Your task to perform on an android device: Go to Google maps Image 0: 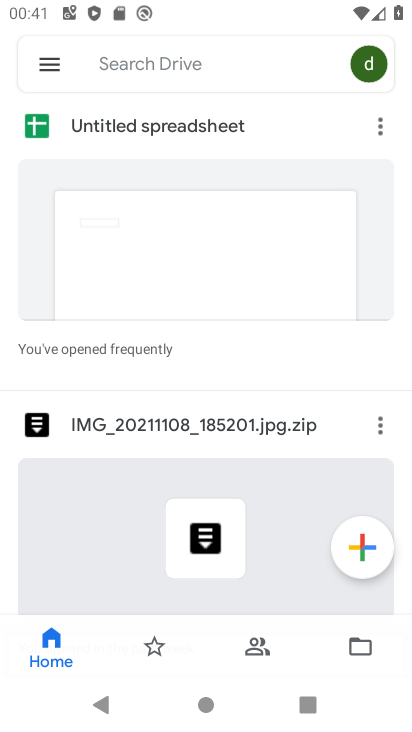
Step 0: press home button
Your task to perform on an android device: Go to Google maps Image 1: 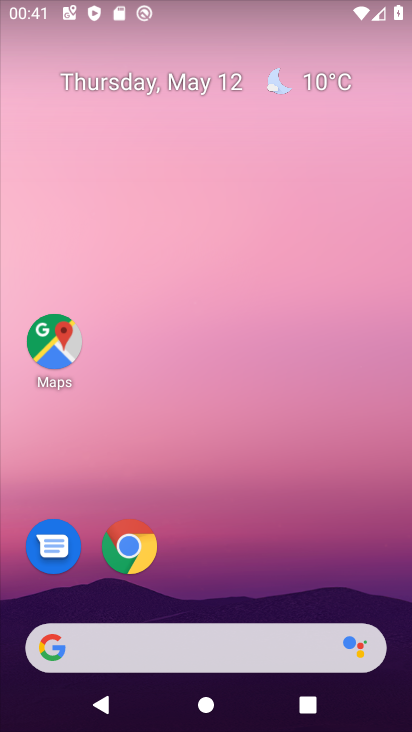
Step 1: click (49, 344)
Your task to perform on an android device: Go to Google maps Image 2: 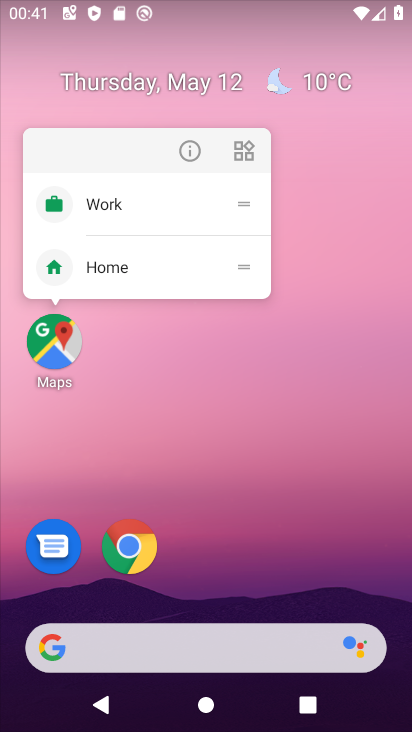
Step 2: click (50, 344)
Your task to perform on an android device: Go to Google maps Image 3: 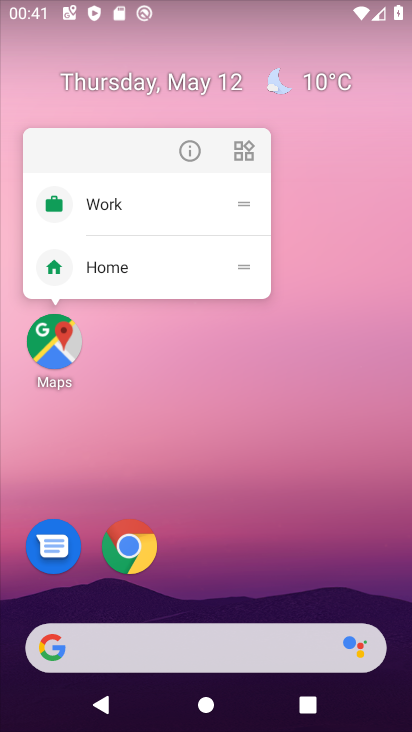
Step 3: click (48, 344)
Your task to perform on an android device: Go to Google maps Image 4: 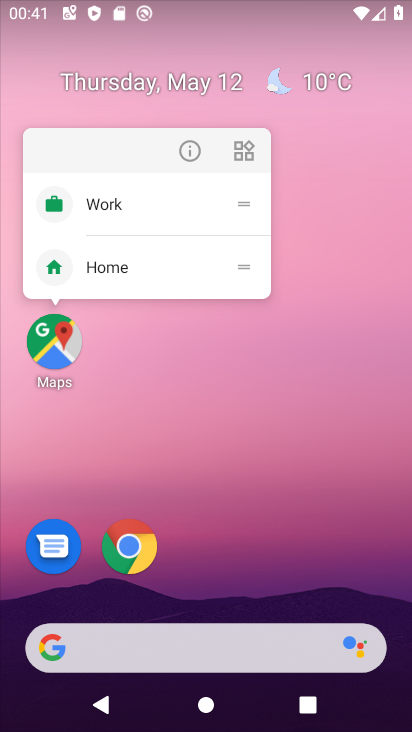
Step 4: click (178, 155)
Your task to perform on an android device: Go to Google maps Image 5: 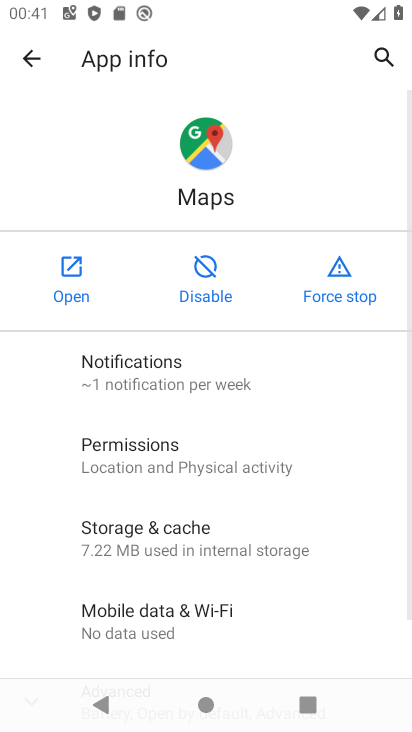
Step 5: click (61, 289)
Your task to perform on an android device: Go to Google maps Image 6: 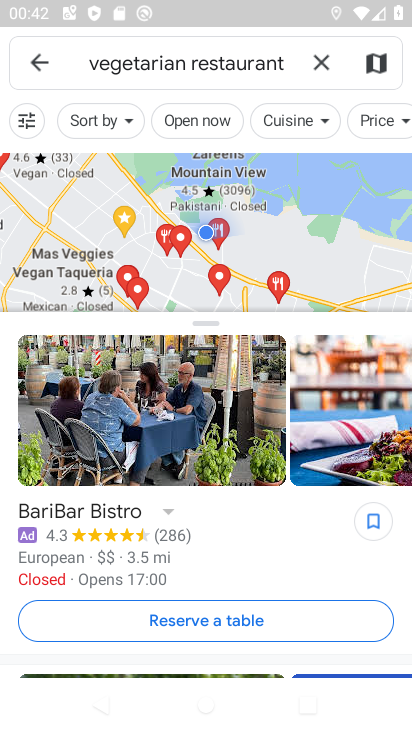
Step 6: task complete